Your task to perform on an android device: toggle location history Image 0: 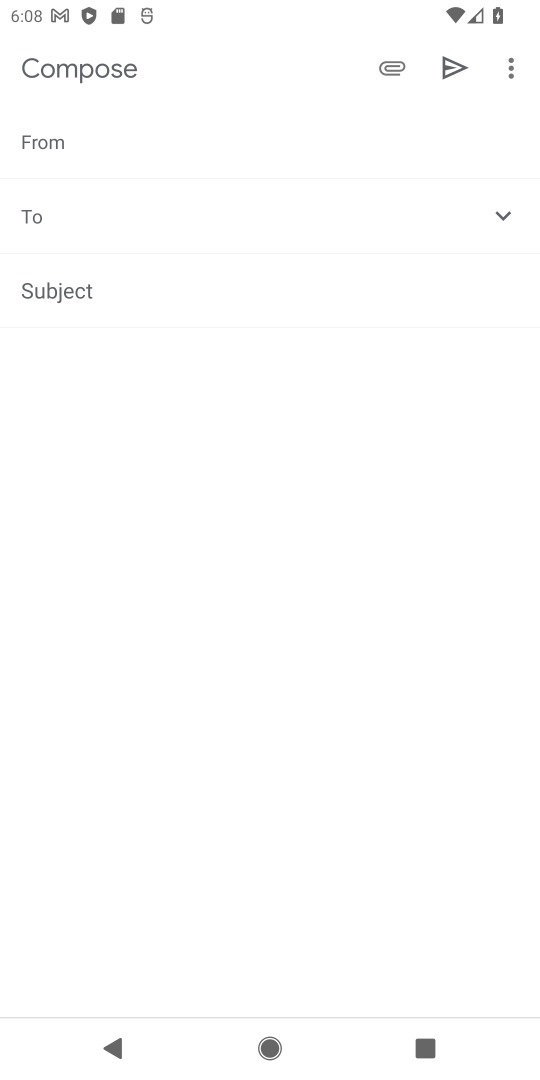
Step 0: press home button
Your task to perform on an android device: toggle location history Image 1: 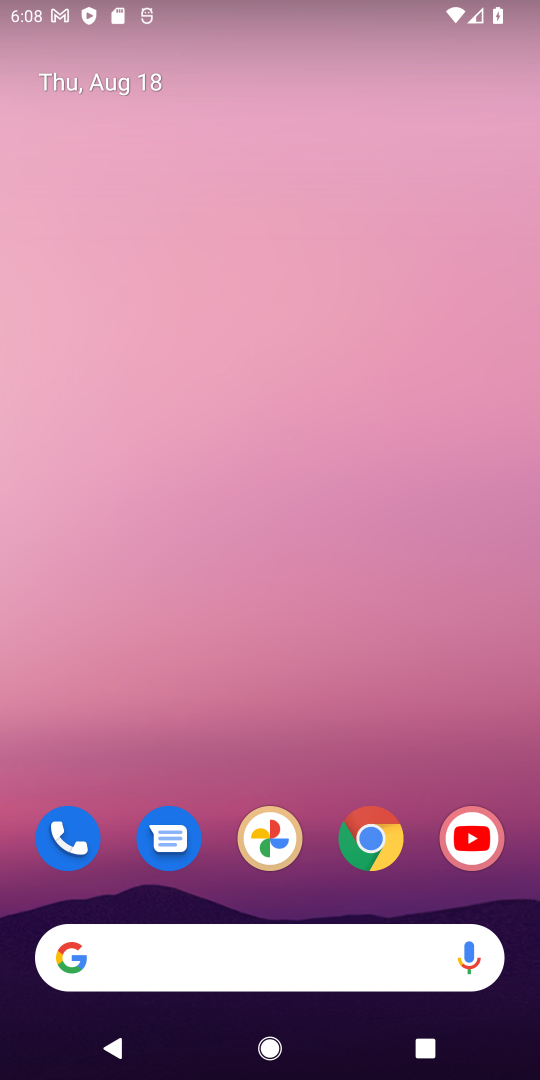
Step 1: press home button
Your task to perform on an android device: toggle location history Image 2: 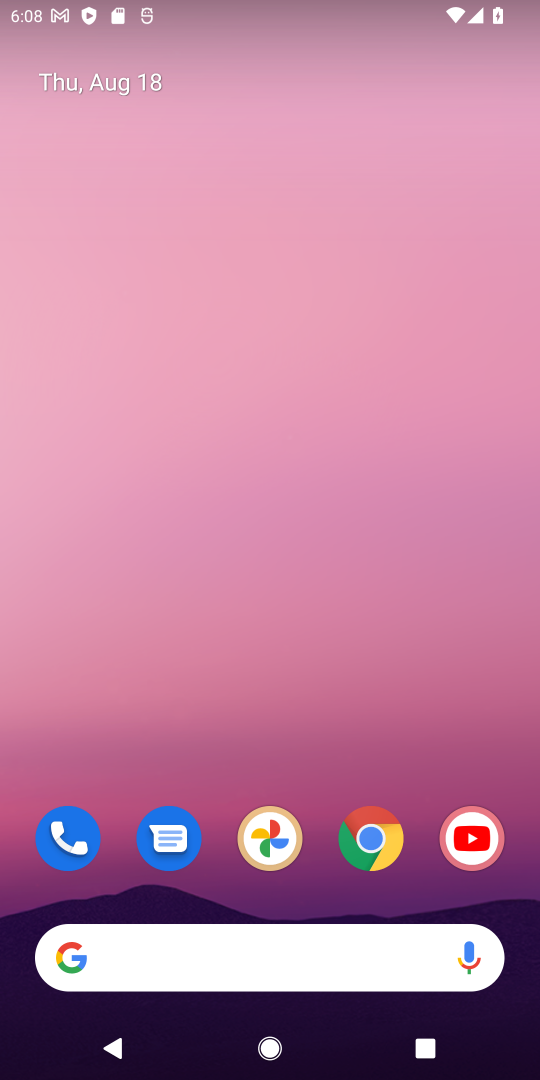
Step 2: press home button
Your task to perform on an android device: toggle location history Image 3: 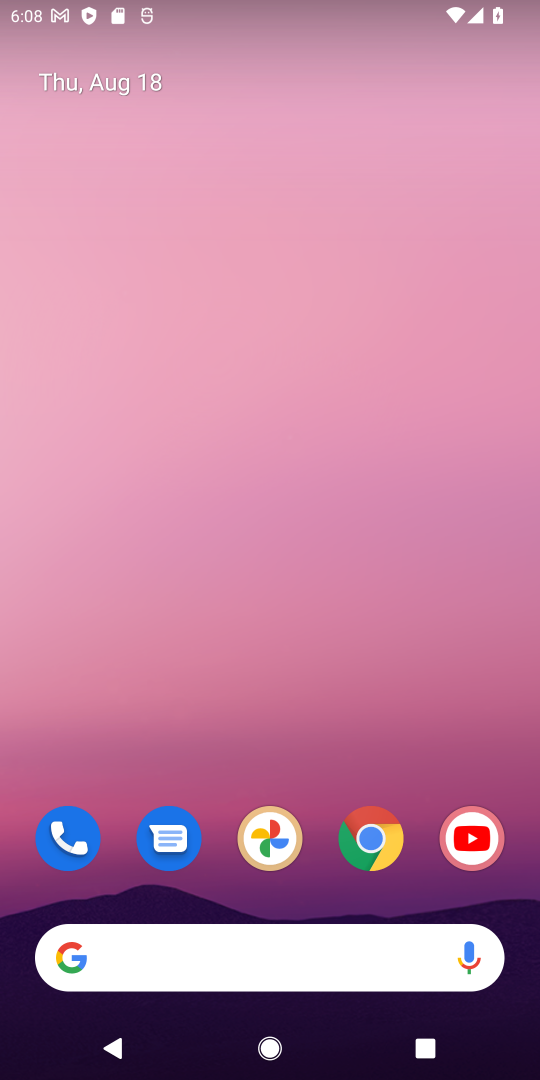
Step 3: drag from (321, 900) to (318, 10)
Your task to perform on an android device: toggle location history Image 4: 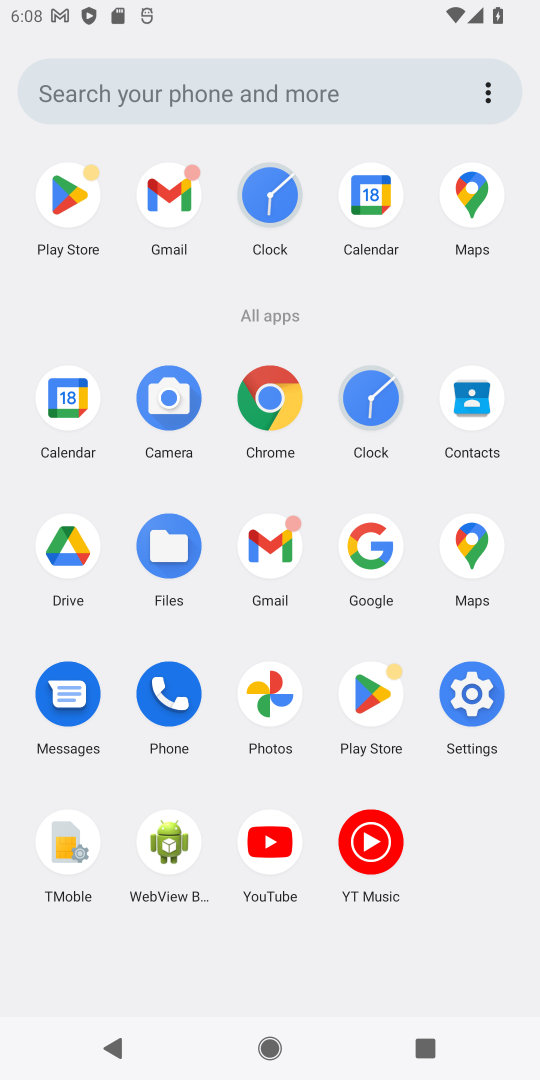
Step 4: click (472, 705)
Your task to perform on an android device: toggle location history Image 5: 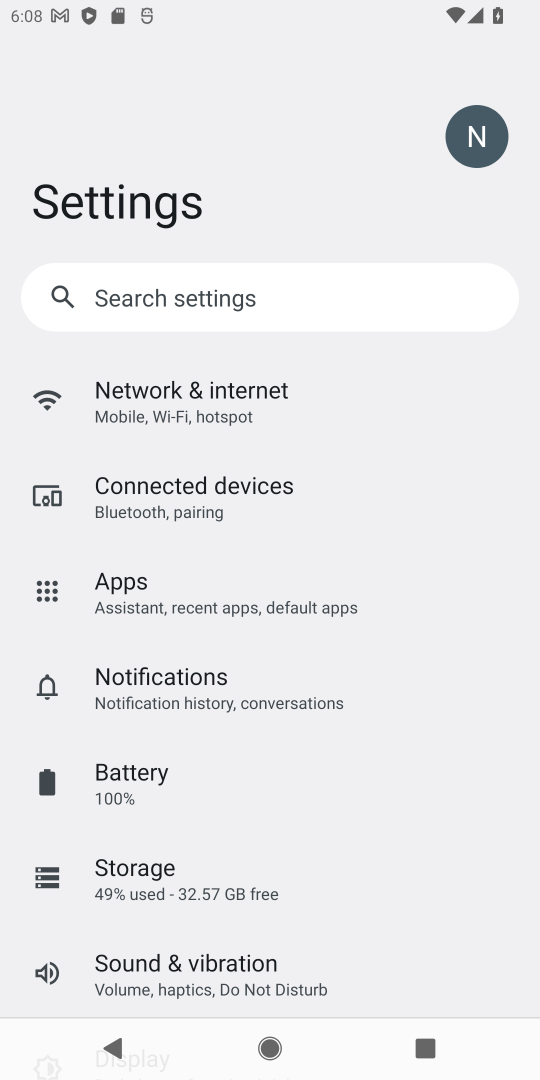
Step 5: drag from (427, 955) to (357, 303)
Your task to perform on an android device: toggle location history Image 6: 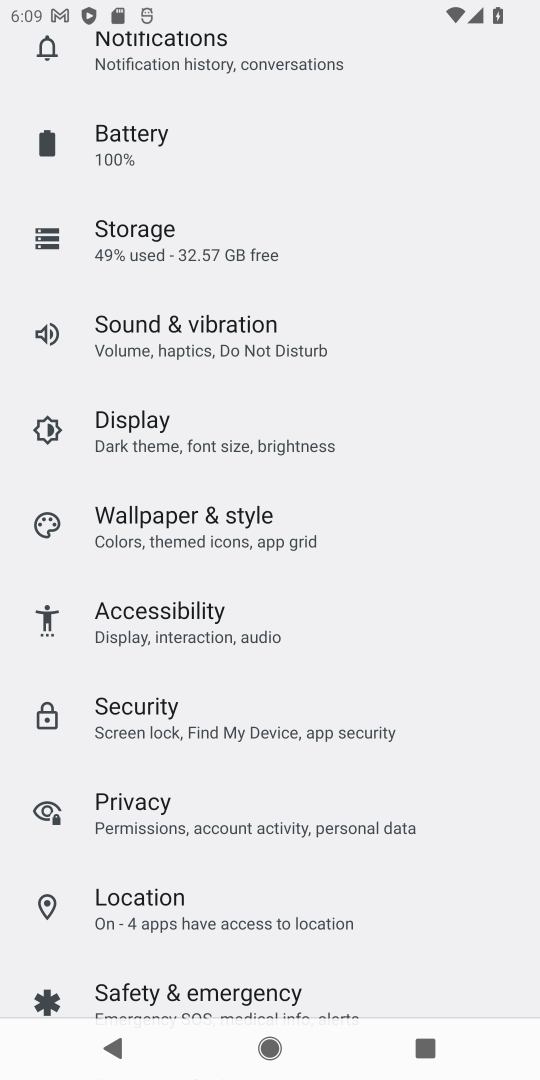
Step 6: click (118, 910)
Your task to perform on an android device: toggle location history Image 7: 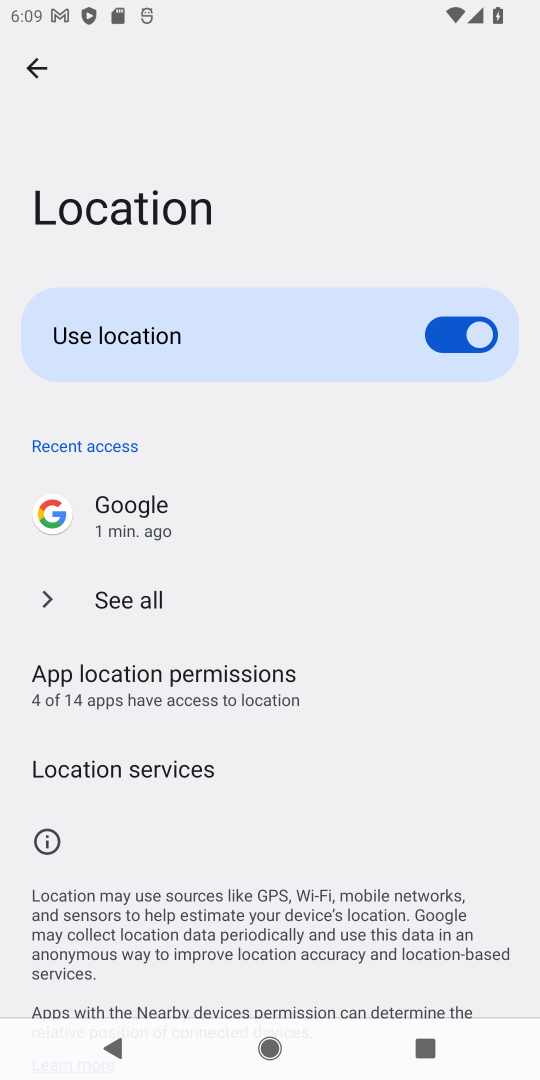
Step 7: click (117, 774)
Your task to perform on an android device: toggle location history Image 8: 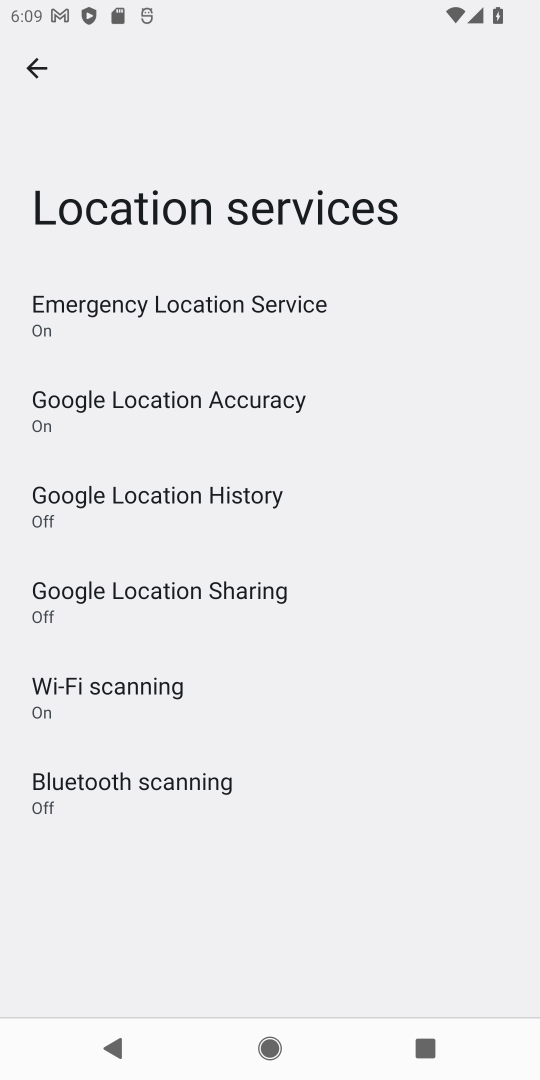
Step 8: click (187, 494)
Your task to perform on an android device: toggle location history Image 9: 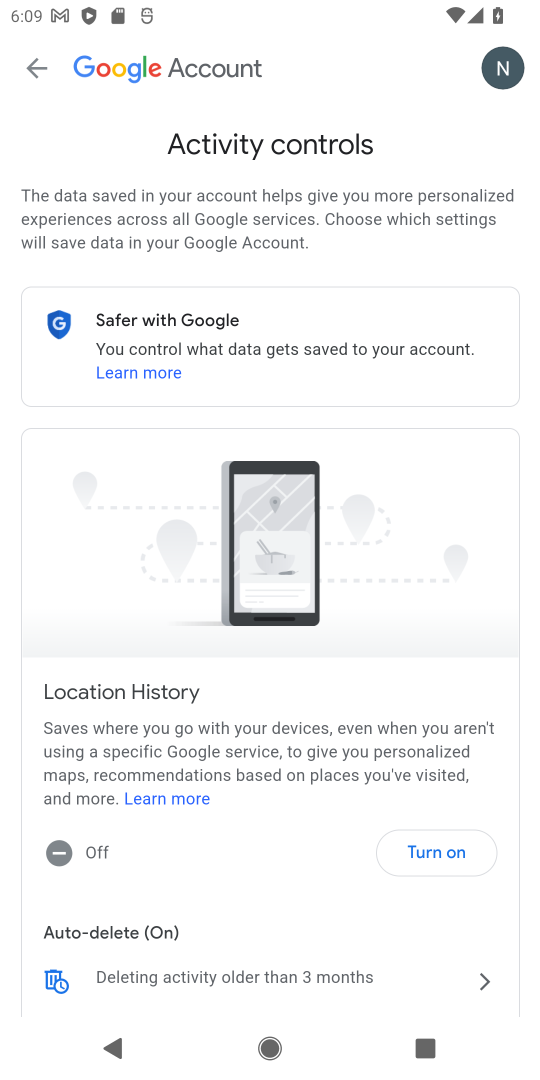
Step 9: click (432, 852)
Your task to perform on an android device: toggle location history Image 10: 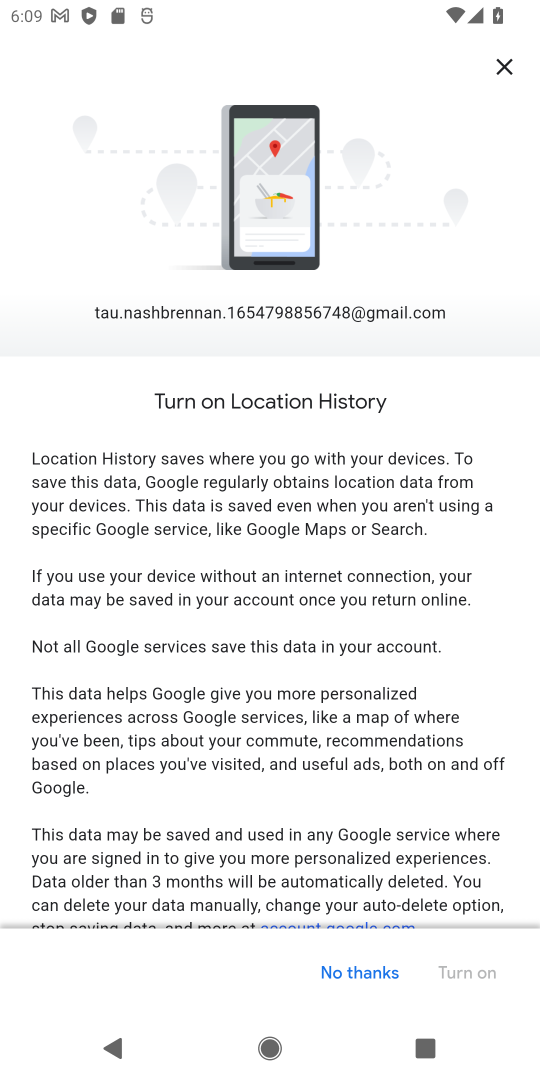
Step 10: drag from (486, 853) to (400, 164)
Your task to perform on an android device: toggle location history Image 11: 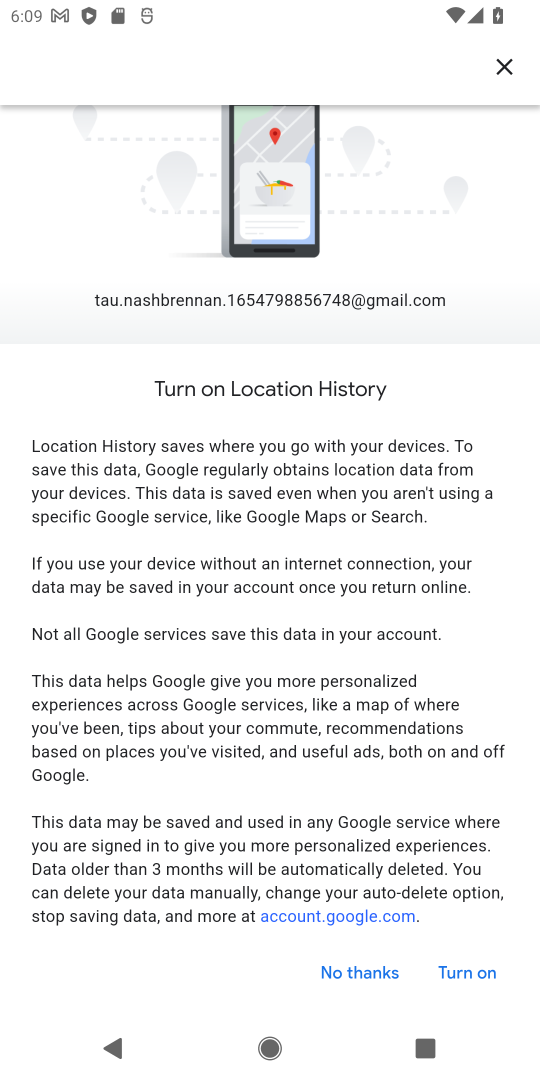
Step 11: click (447, 977)
Your task to perform on an android device: toggle location history Image 12: 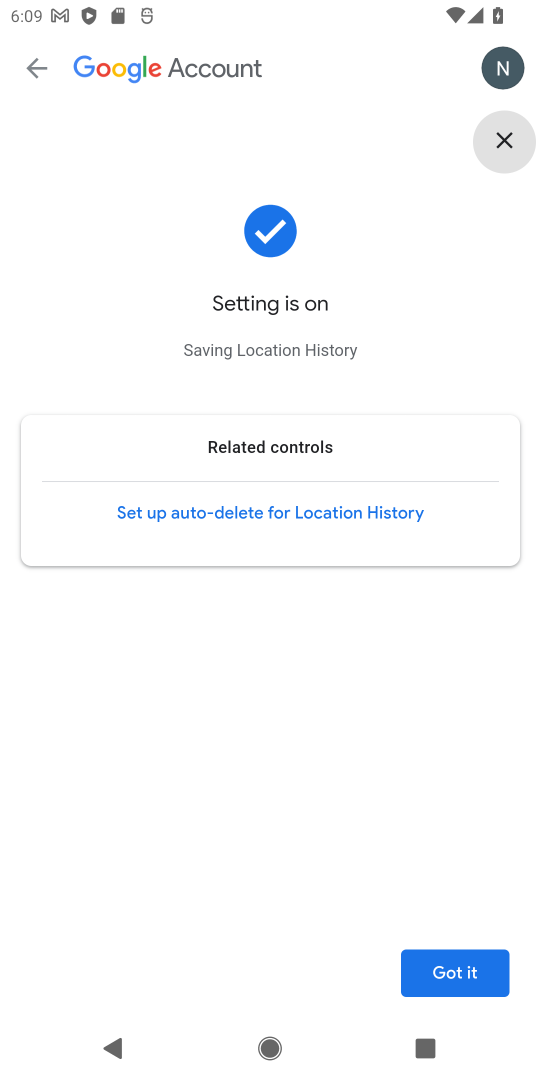
Step 12: click (447, 977)
Your task to perform on an android device: toggle location history Image 13: 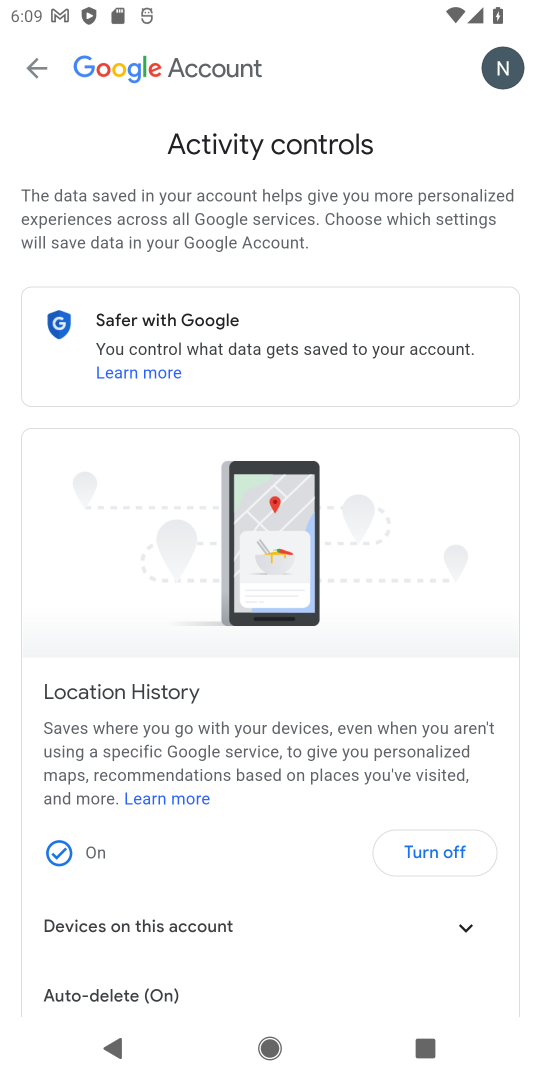
Step 13: task complete